Your task to perform on an android device: Go to ESPN.com Image 0: 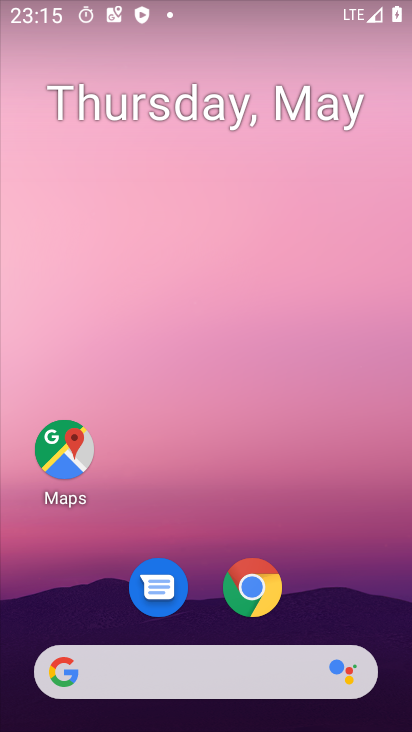
Step 0: click (256, 589)
Your task to perform on an android device: Go to ESPN.com Image 1: 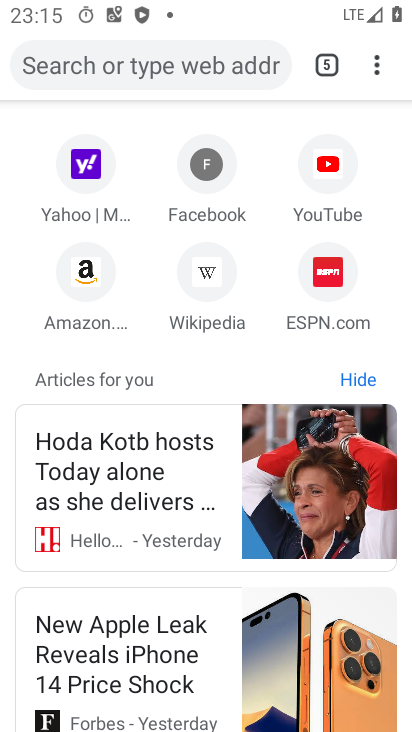
Step 1: click (335, 289)
Your task to perform on an android device: Go to ESPN.com Image 2: 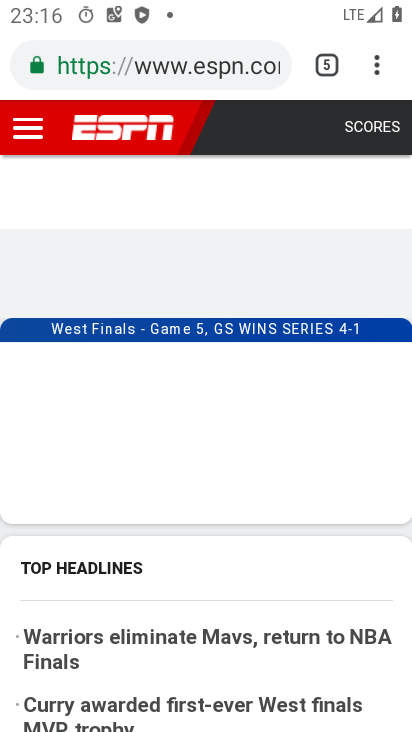
Step 2: task complete